Your task to perform on an android device: turn off location history Image 0: 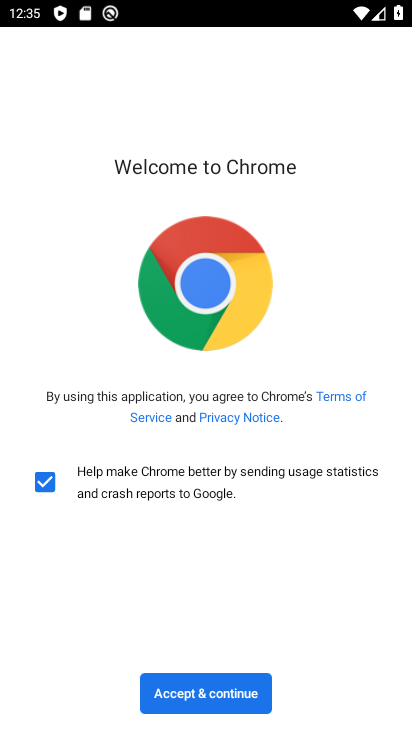
Step 0: click (205, 700)
Your task to perform on an android device: turn off location history Image 1: 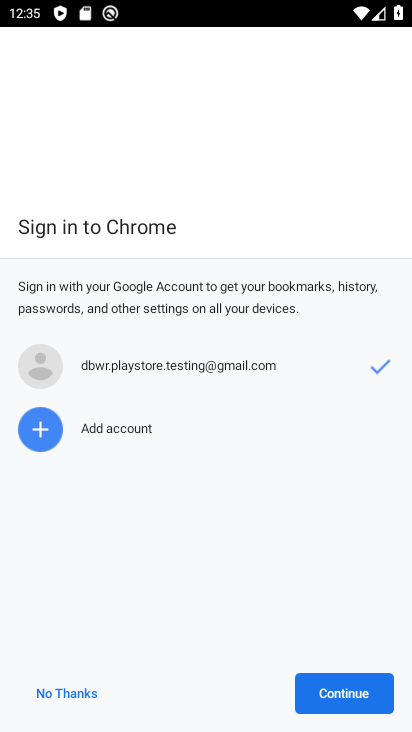
Step 1: click (342, 701)
Your task to perform on an android device: turn off location history Image 2: 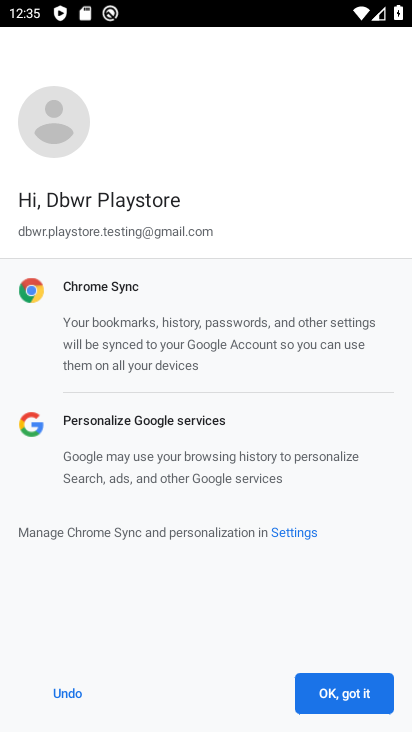
Step 2: click (355, 709)
Your task to perform on an android device: turn off location history Image 3: 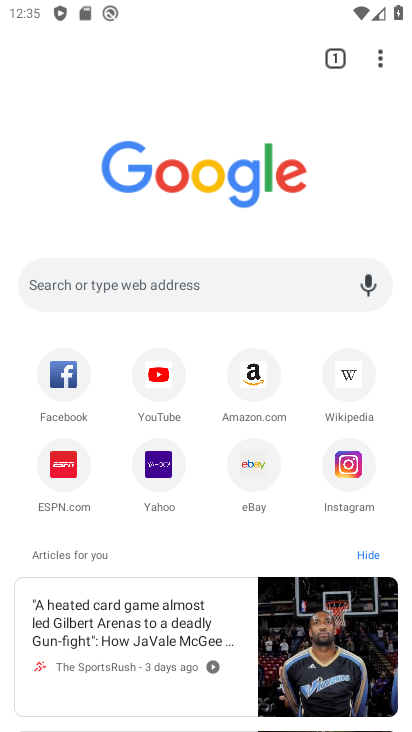
Step 3: press home button
Your task to perform on an android device: turn off location history Image 4: 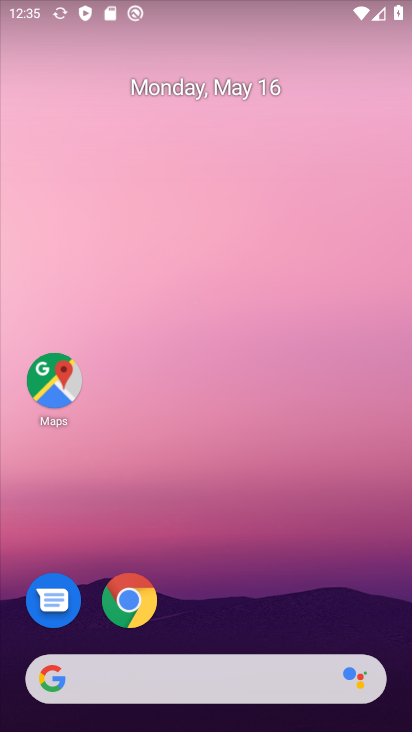
Step 4: drag from (322, 574) to (331, 101)
Your task to perform on an android device: turn off location history Image 5: 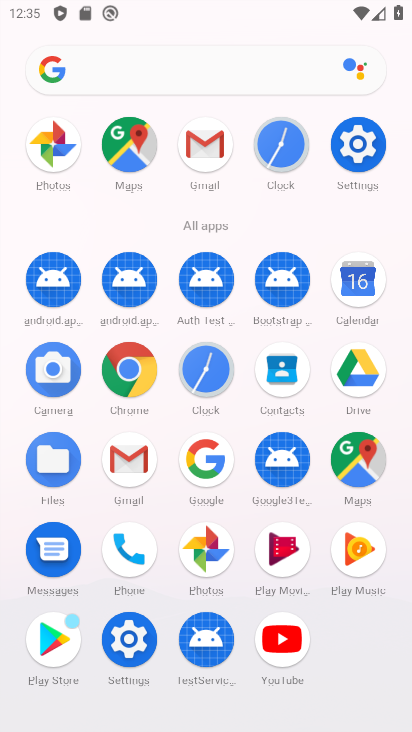
Step 5: click (355, 158)
Your task to perform on an android device: turn off location history Image 6: 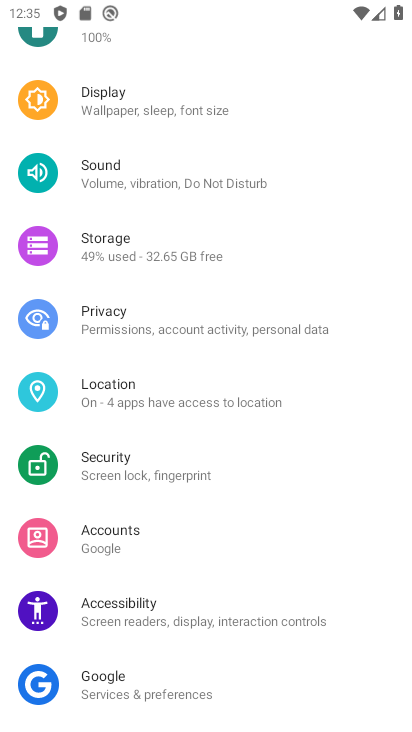
Step 6: click (221, 413)
Your task to perform on an android device: turn off location history Image 7: 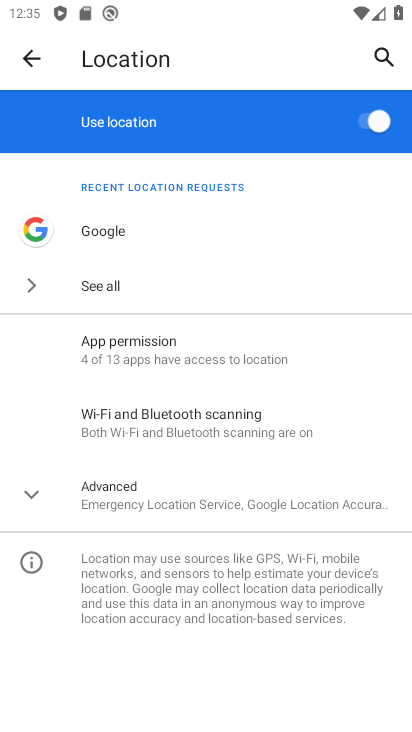
Step 7: click (239, 506)
Your task to perform on an android device: turn off location history Image 8: 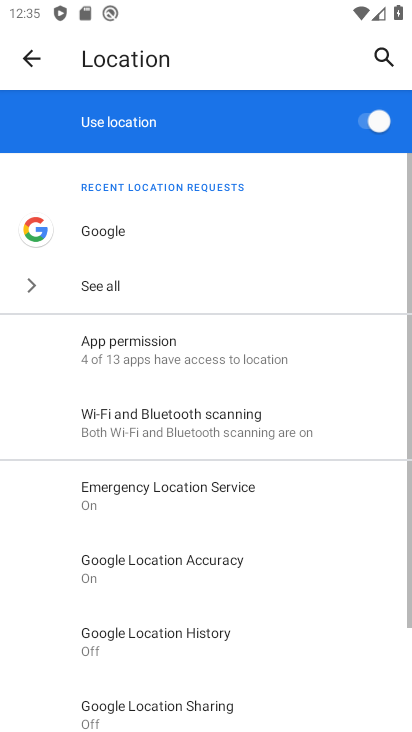
Step 8: drag from (287, 615) to (311, 446)
Your task to perform on an android device: turn off location history Image 9: 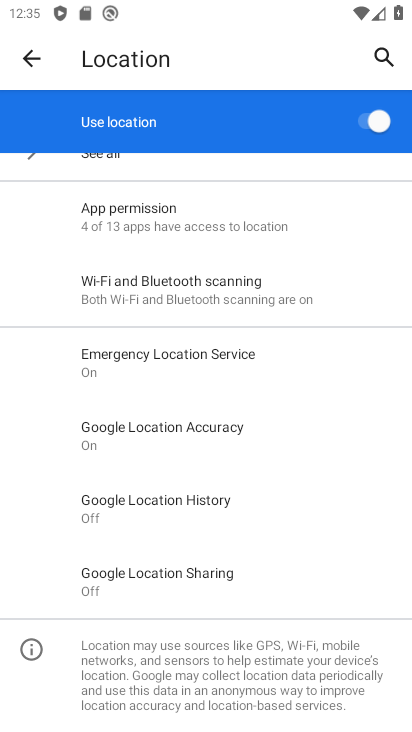
Step 9: click (170, 518)
Your task to perform on an android device: turn off location history Image 10: 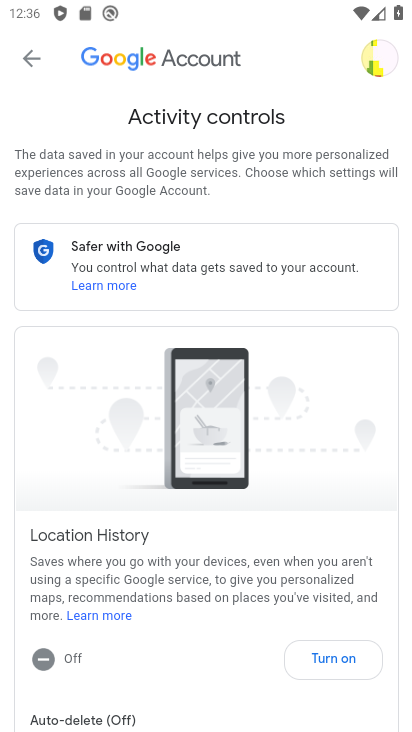
Step 10: task complete